Your task to perform on an android device: turn off sleep mode Image 0: 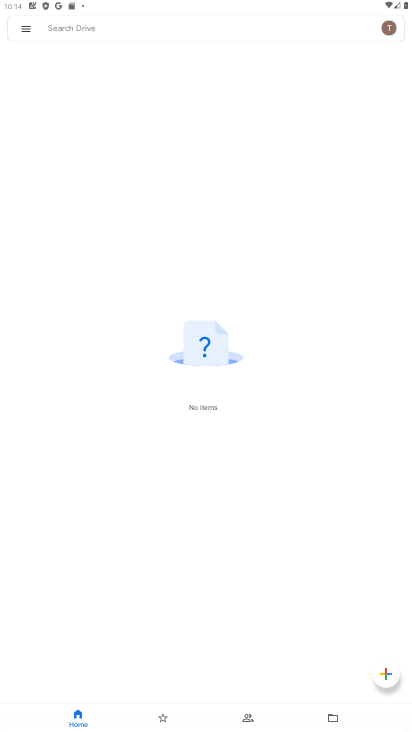
Step 0: press home button
Your task to perform on an android device: turn off sleep mode Image 1: 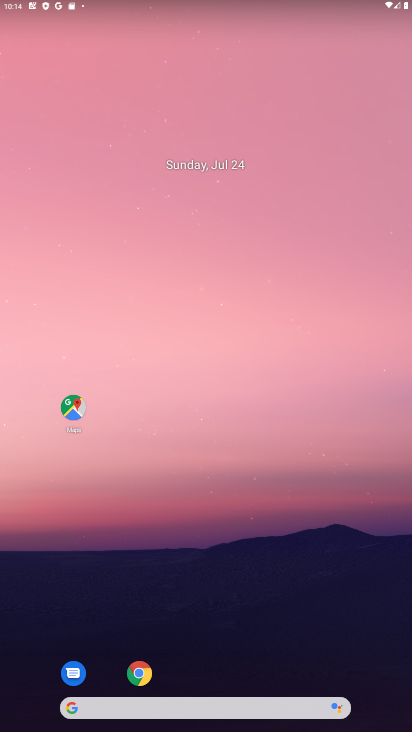
Step 1: drag from (22, 681) to (268, 164)
Your task to perform on an android device: turn off sleep mode Image 2: 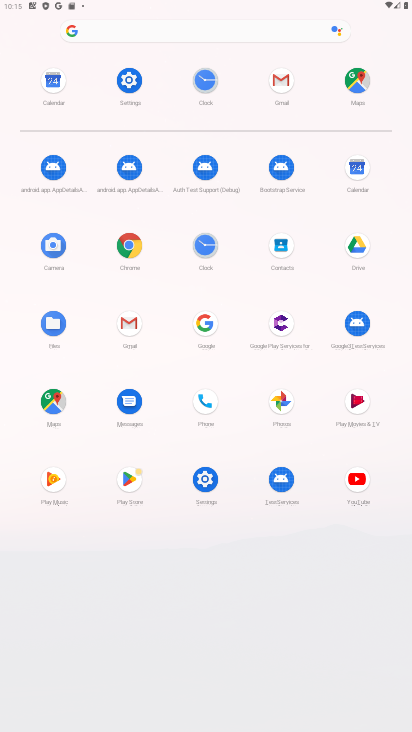
Step 2: click (210, 492)
Your task to perform on an android device: turn off sleep mode Image 3: 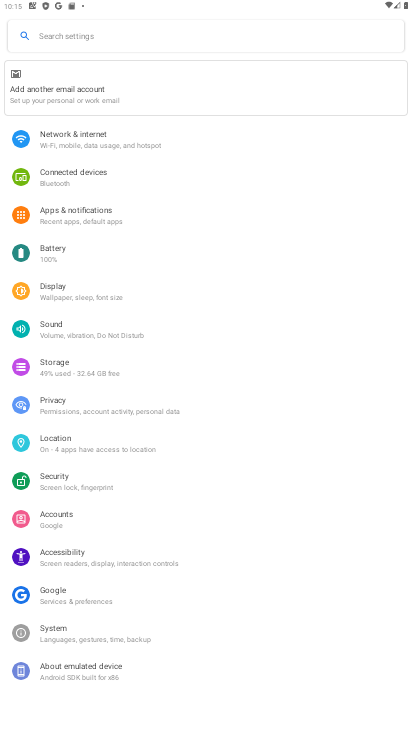
Step 3: task complete